Your task to perform on an android device: change the clock style Image 0: 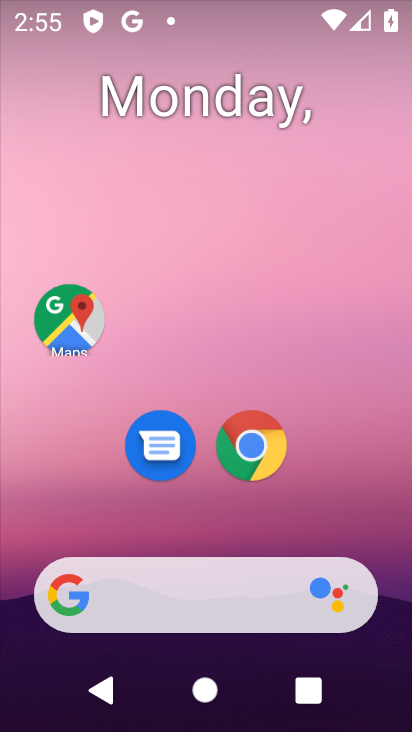
Step 0: drag from (162, 424) to (229, 156)
Your task to perform on an android device: change the clock style Image 1: 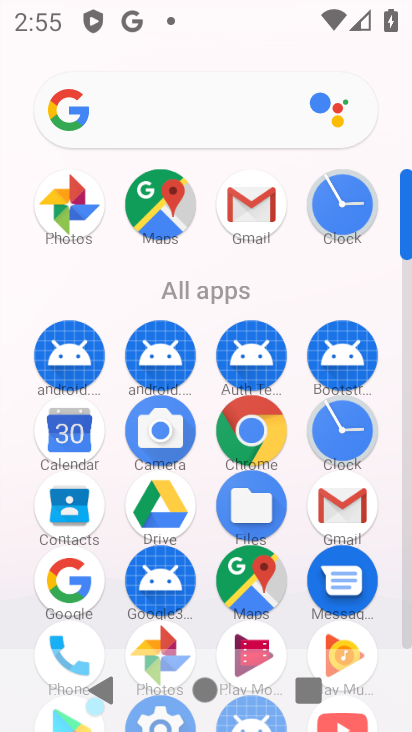
Step 1: drag from (132, 565) to (215, 71)
Your task to perform on an android device: change the clock style Image 2: 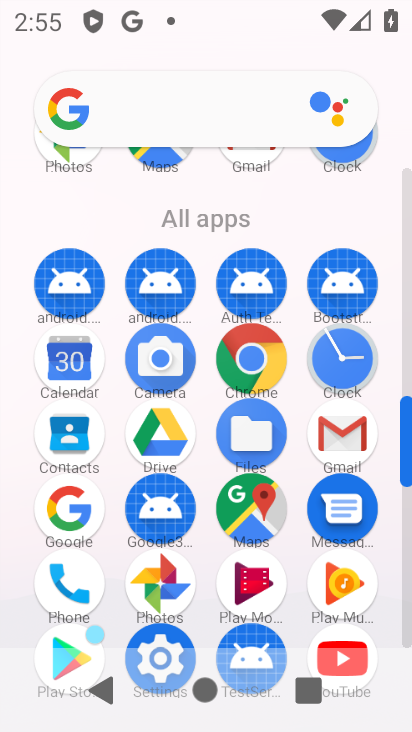
Step 2: click (360, 385)
Your task to perform on an android device: change the clock style Image 3: 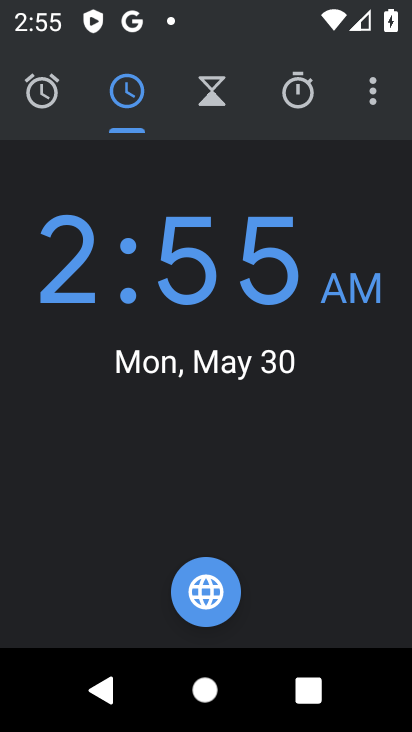
Step 3: click (383, 100)
Your task to perform on an android device: change the clock style Image 4: 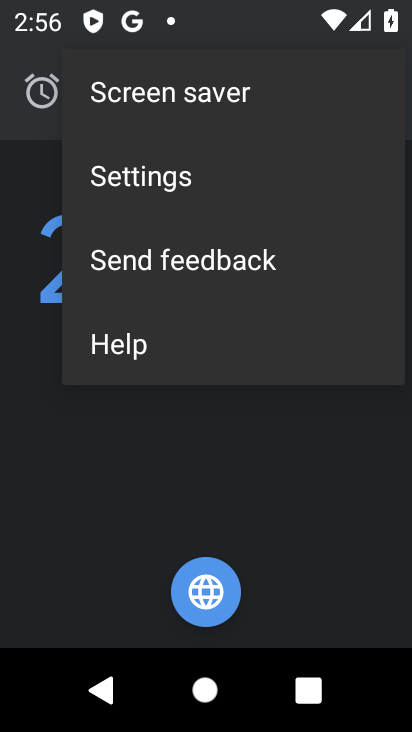
Step 4: click (264, 168)
Your task to perform on an android device: change the clock style Image 5: 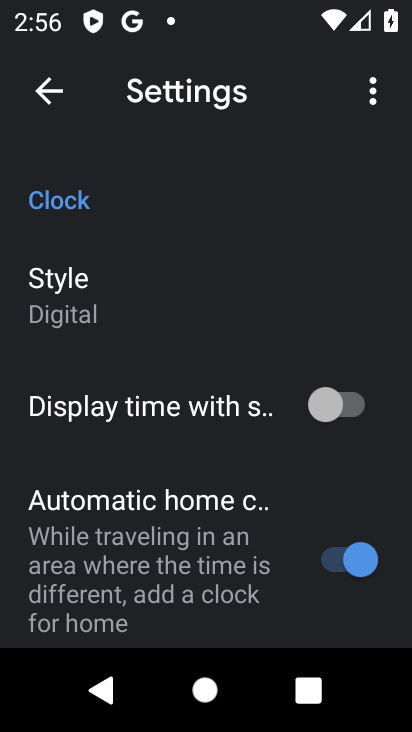
Step 5: click (197, 268)
Your task to perform on an android device: change the clock style Image 6: 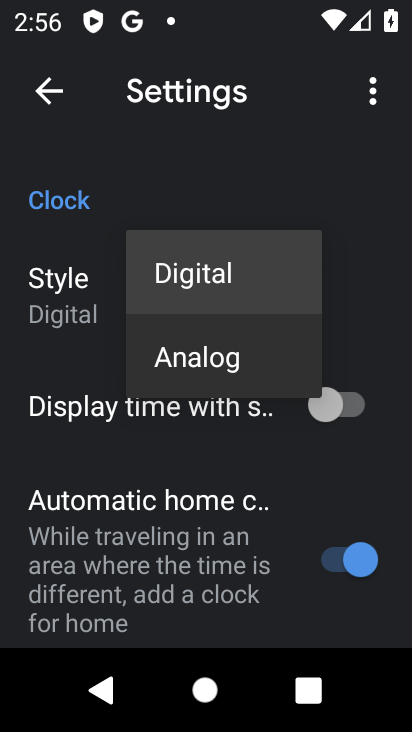
Step 6: click (212, 362)
Your task to perform on an android device: change the clock style Image 7: 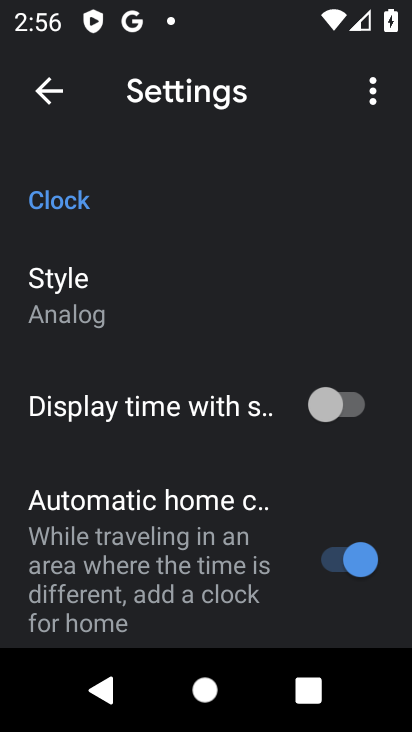
Step 7: task complete